Your task to perform on an android device: Open eBay Image 0: 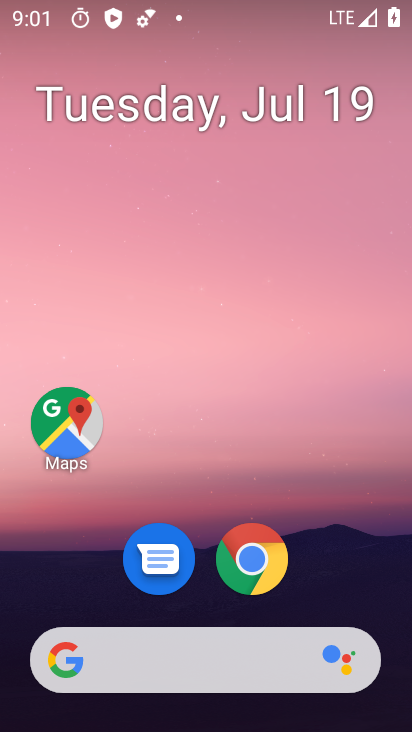
Step 0: click (269, 565)
Your task to perform on an android device: Open eBay Image 1: 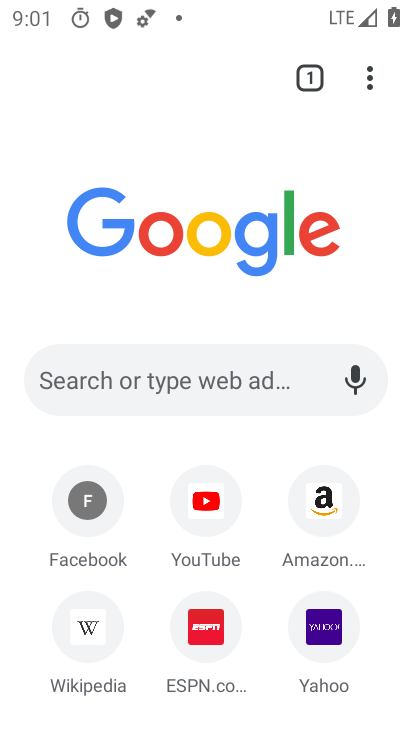
Step 1: click (285, 390)
Your task to perform on an android device: Open eBay Image 2: 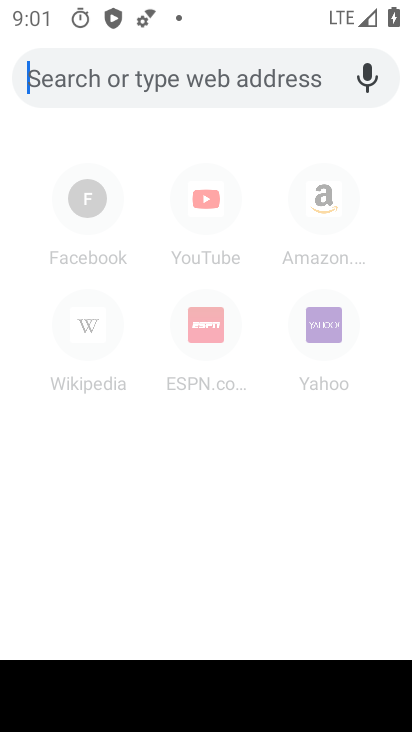
Step 2: type "eBay"
Your task to perform on an android device: Open eBay Image 3: 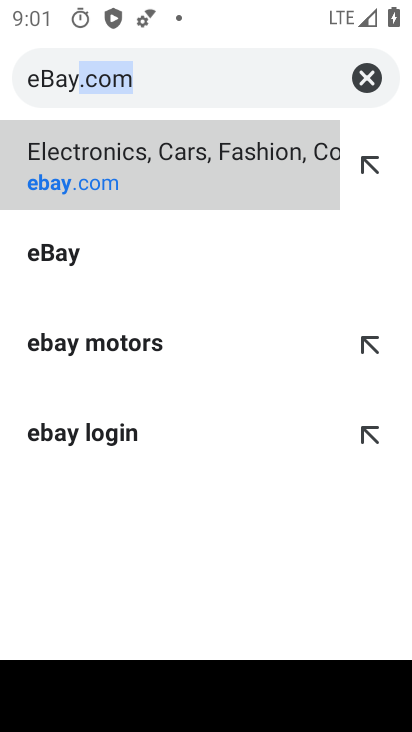
Step 3: click (110, 168)
Your task to perform on an android device: Open eBay Image 4: 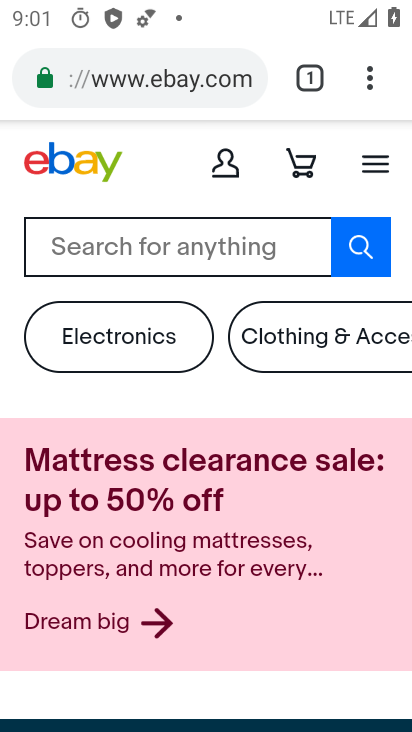
Step 4: task complete